Your task to perform on an android device: delete browsing data in the chrome app Image 0: 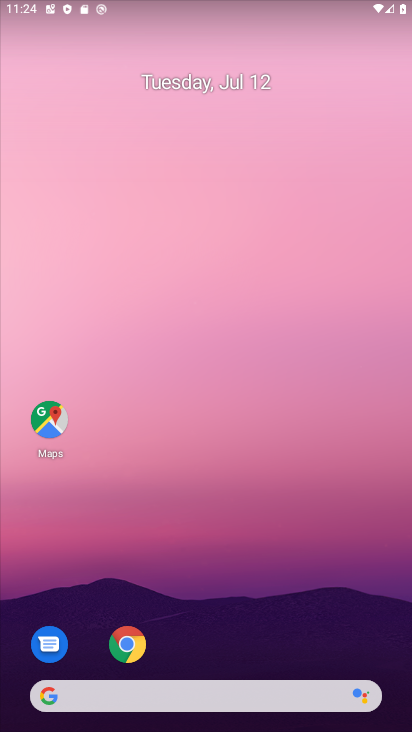
Step 0: click (129, 640)
Your task to perform on an android device: delete browsing data in the chrome app Image 1: 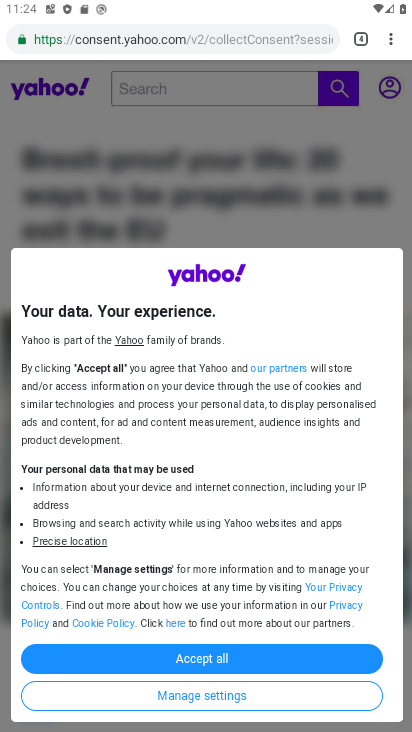
Step 1: click (394, 36)
Your task to perform on an android device: delete browsing data in the chrome app Image 2: 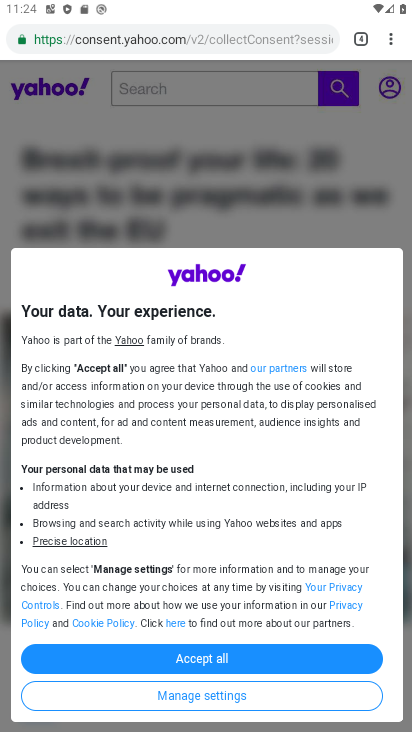
Step 2: click (394, 36)
Your task to perform on an android device: delete browsing data in the chrome app Image 3: 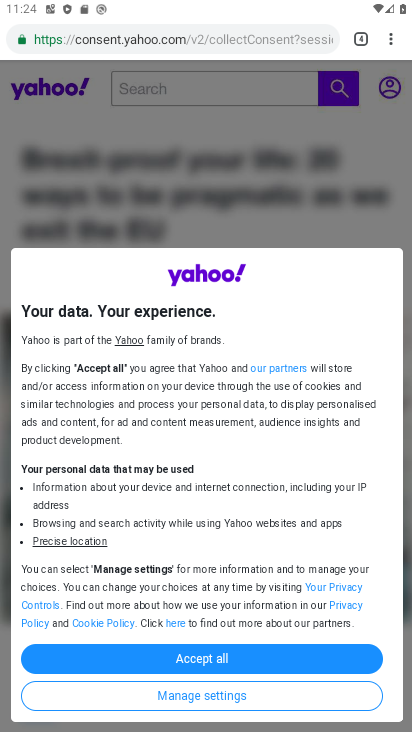
Step 3: click (394, 36)
Your task to perform on an android device: delete browsing data in the chrome app Image 4: 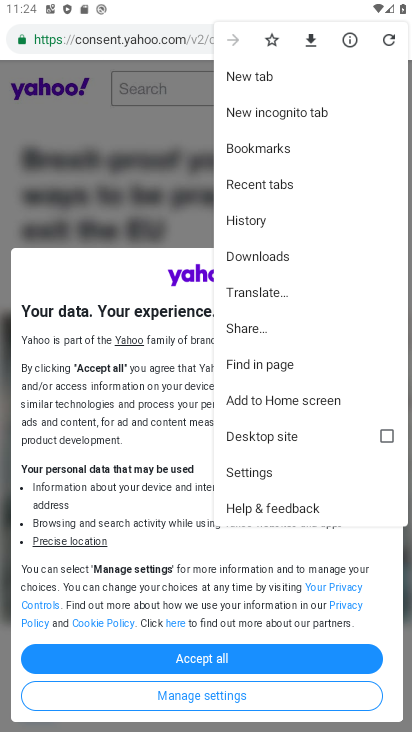
Step 4: click (279, 222)
Your task to perform on an android device: delete browsing data in the chrome app Image 5: 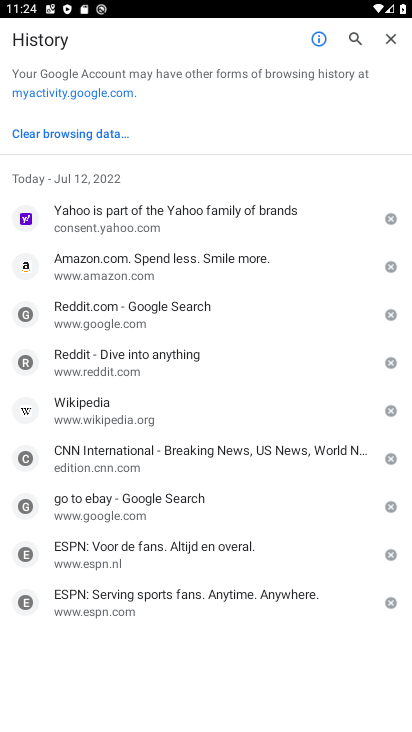
Step 5: click (103, 132)
Your task to perform on an android device: delete browsing data in the chrome app Image 6: 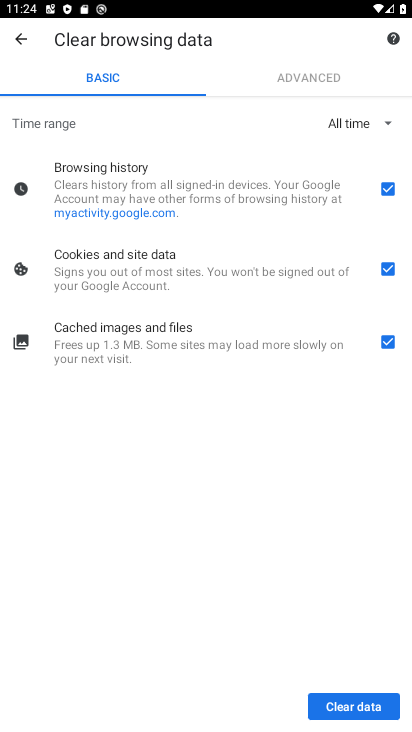
Step 6: click (350, 712)
Your task to perform on an android device: delete browsing data in the chrome app Image 7: 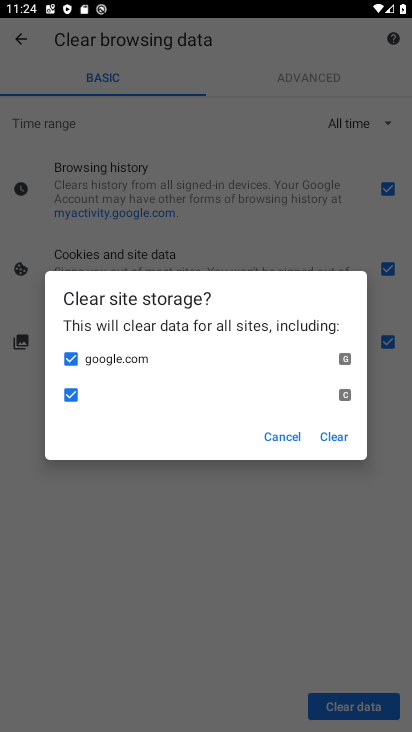
Step 7: click (330, 428)
Your task to perform on an android device: delete browsing data in the chrome app Image 8: 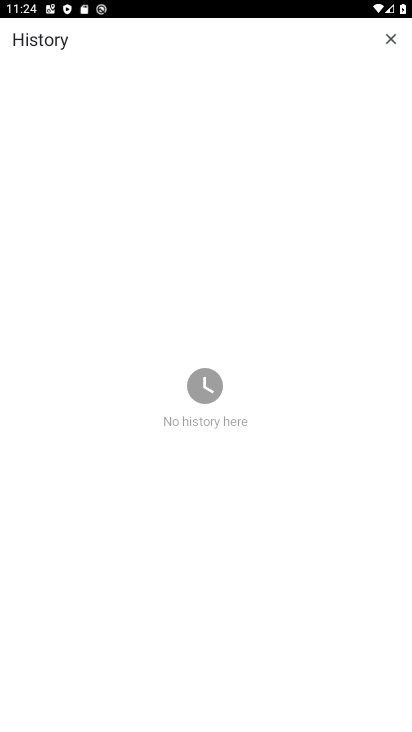
Step 8: task complete